Your task to perform on an android device: toggle improve location accuracy Image 0: 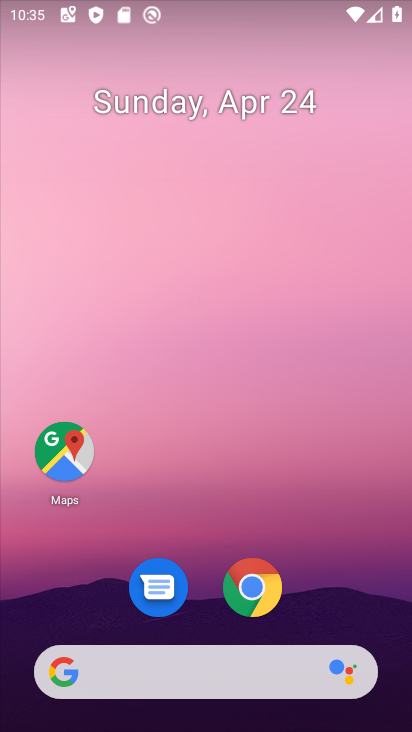
Step 0: drag from (377, 560) to (340, 119)
Your task to perform on an android device: toggle improve location accuracy Image 1: 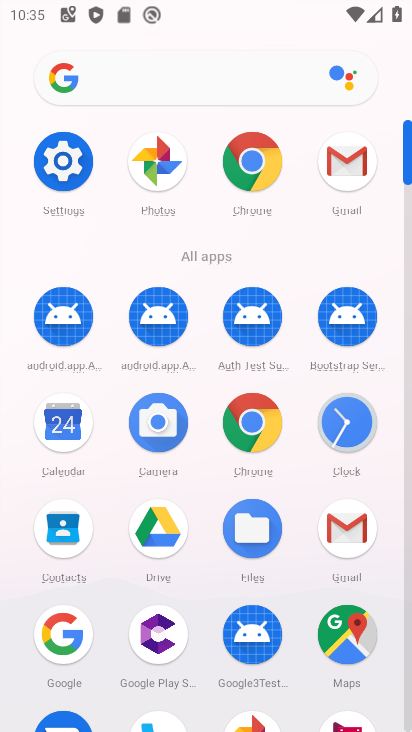
Step 1: click (79, 165)
Your task to perform on an android device: toggle improve location accuracy Image 2: 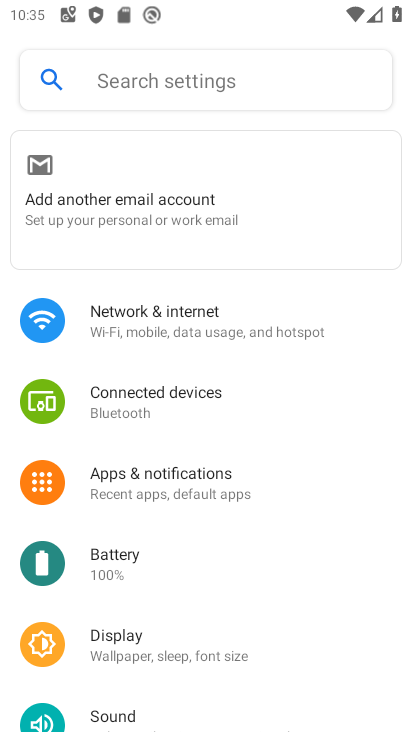
Step 2: drag from (289, 655) to (293, 282)
Your task to perform on an android device: toggle improve location accuracy Image 3: 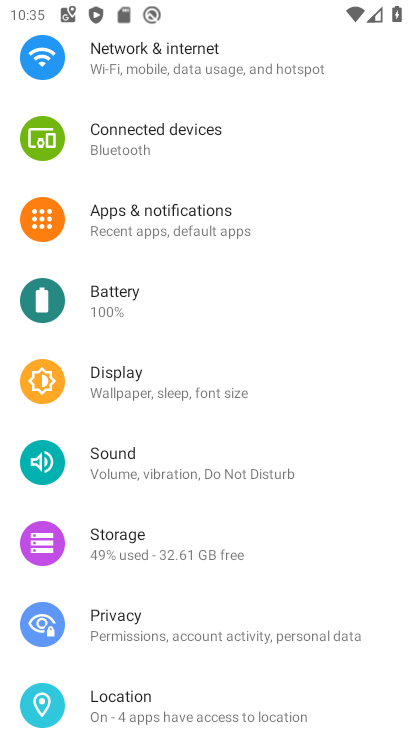
Step 3: drag from (303, 562) to (327, 268)
Your task to perform on an android device: toggle improve location accuracy Image 4: 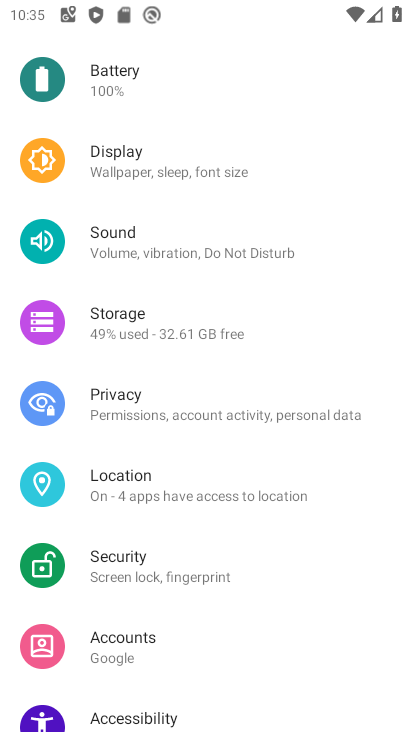
Step 4: drag from (283, 573) to (304, 330)
Your task to perform on an android device: toggle improve location accuracy Image 5: 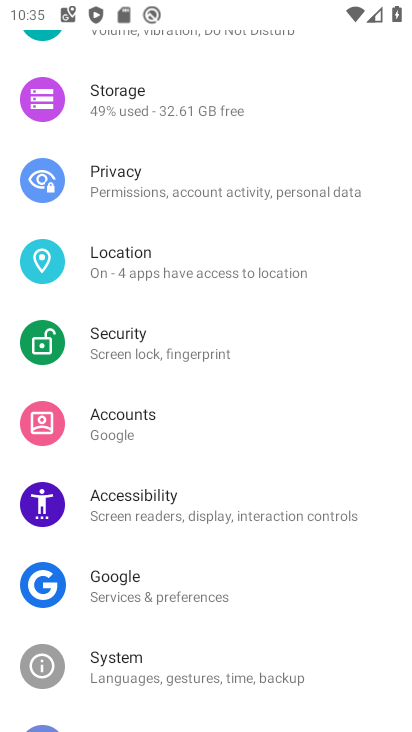
Step 5: click (190, 273)
Your task to perform on an android device: toggle improve location accuracy Image 6: 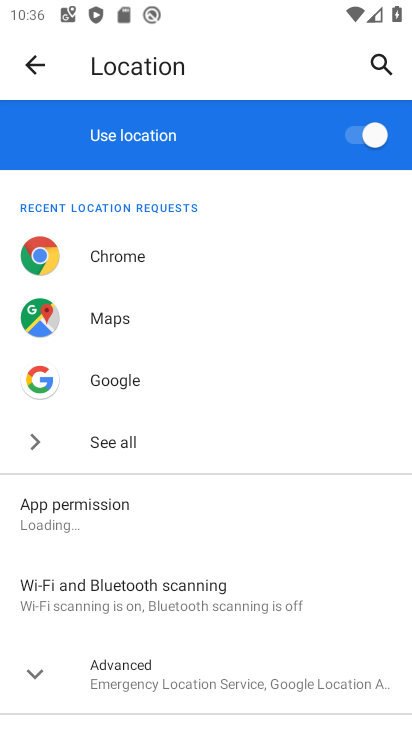
Step 6: drag from (321, 599) to (316, 308)
Your task to perform on an android device: toggle improve location accuracy Image 7: 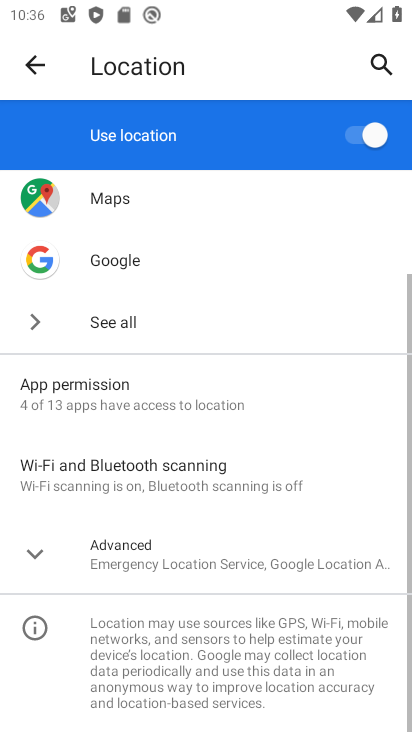
Step 7: click (270, 552)
Your task to perform on an android device: toggle improve location accuracy Image 8: 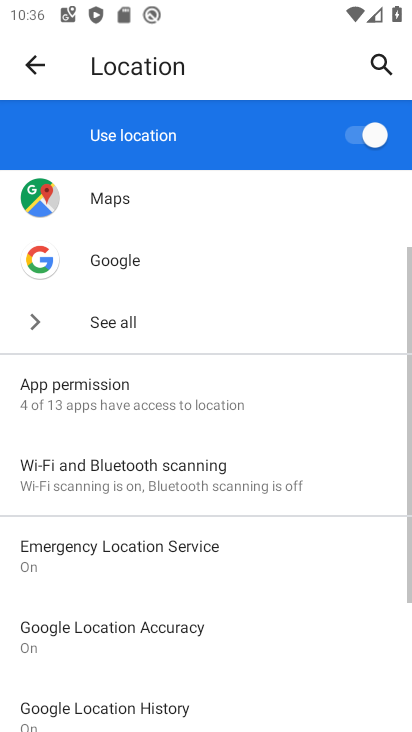
Step 8: drag from (294, 645) to (300, 367)
Your task to perform on an android device: toggle improve location accuracy Image 9: 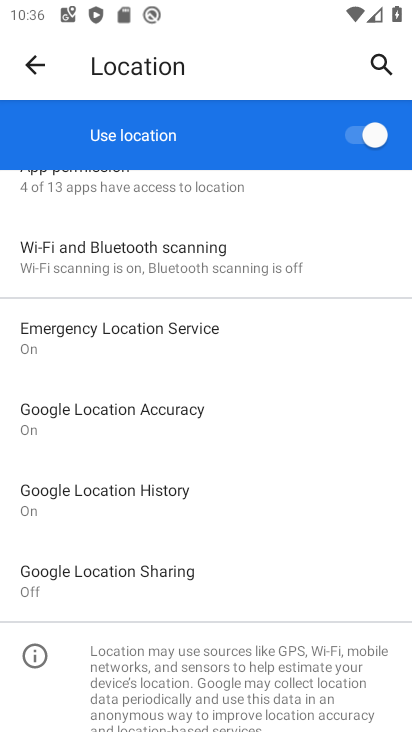
Step 9: click (157, 415)
Your task to perform on an android device: toggle improve location accuracy Image 10: 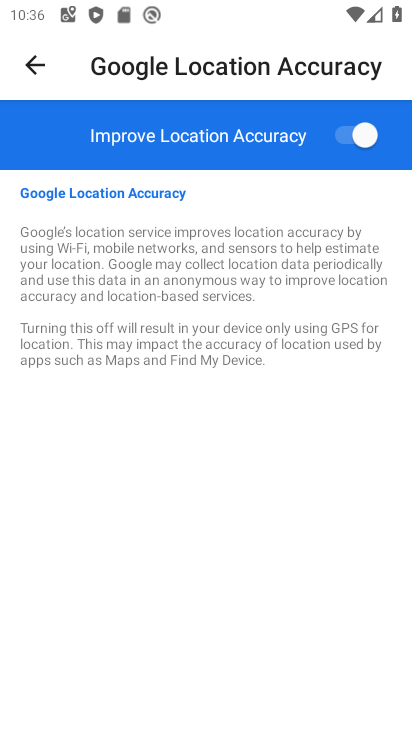
Step 10: click (342, 137)
Your task to perform on an android device: toggle improve location accuracy Image 11: 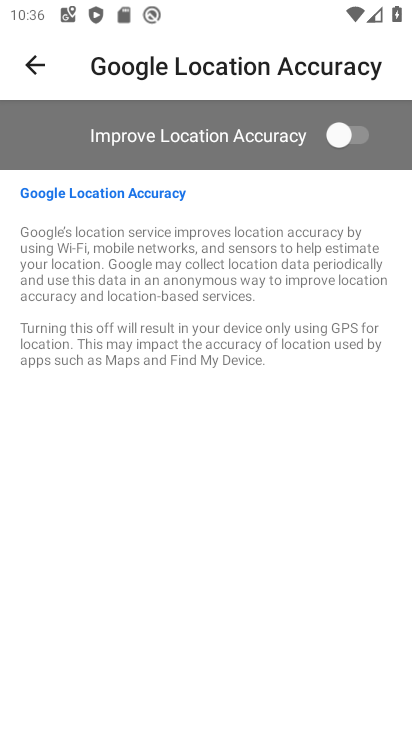
Step 11: task complete